Your task to perform on an android device: allow cookies in the chrome app Image 0: 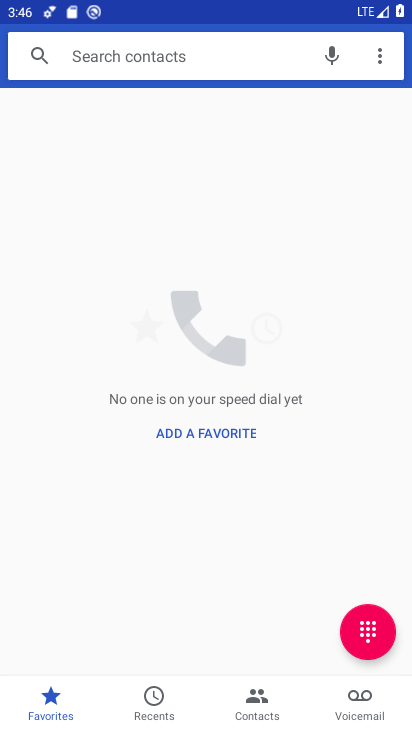
Step 0: press home button
Your task to perform on an android device: allow cookies in the chrome app Image 1: 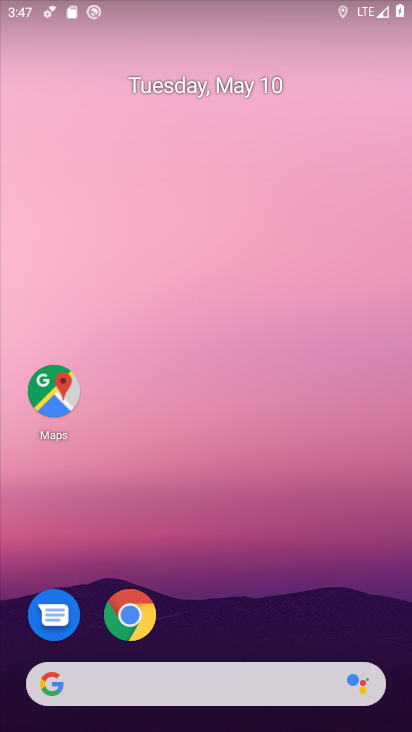
Step 1: drag from (241, 655) to (261, 0)
Your task to perform on an android device: allow cookies in the chrome app Image 2: 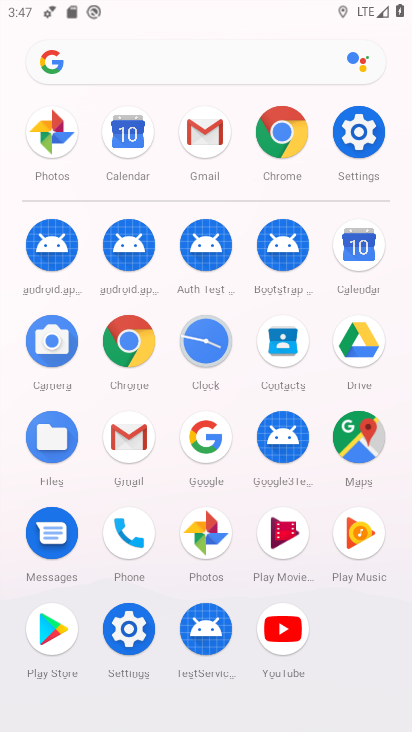
Step 2: click (137, 338)
Your task to perform on an android device: allow cookies in the chrome app Image 3: 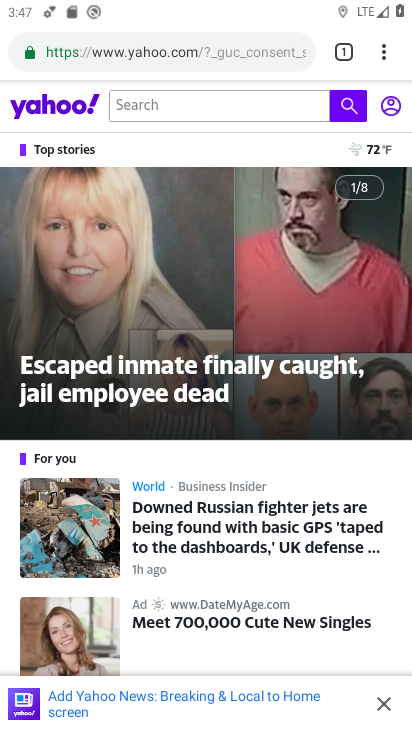
Step 3: drag from (382, 44) to (229, 626)
Your task to perform on an android device: allow cookies in the chrome app Image 4: 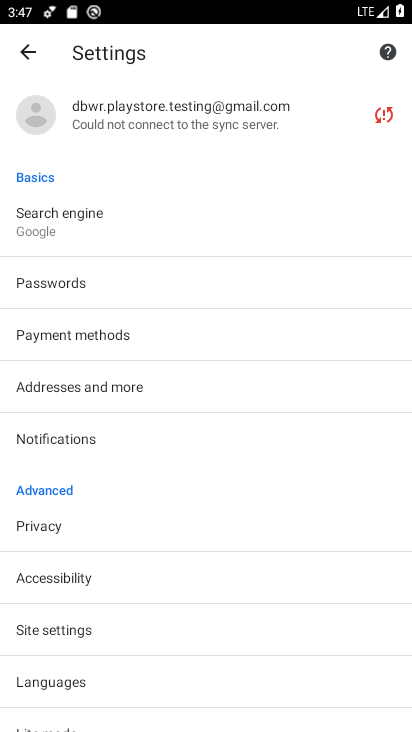
Step 4: click (88, 624)
Your task to perform on an android device: allow cookies in the chrome app Image 5: 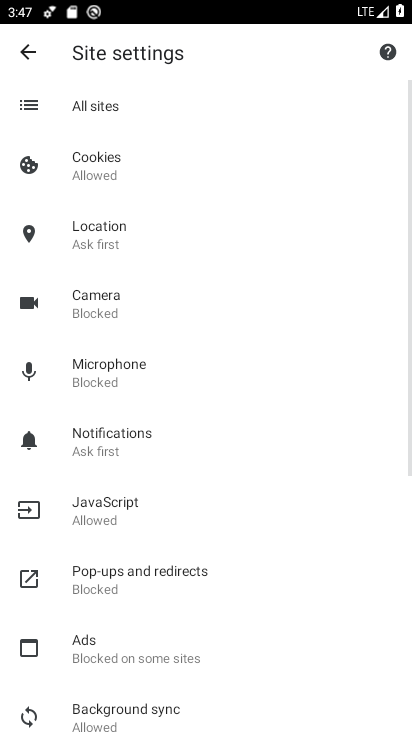
Step 5: click (136, 161)
Your task to perform on an android device: allow cookies in the chrome app Image 6: 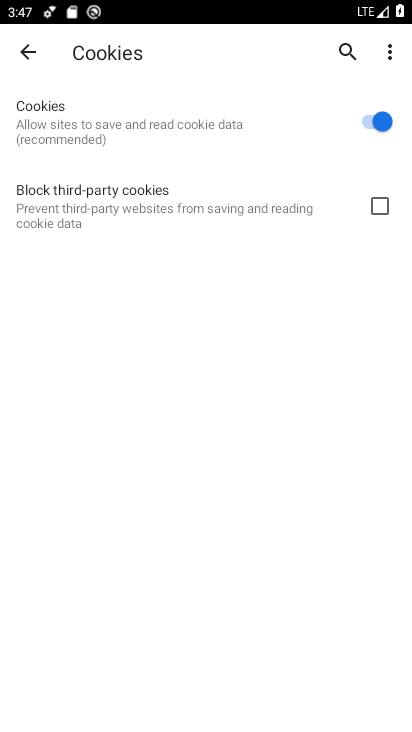
Step 6: task complete